Your task to perform on an android device: Search for seafood restaurants on Google Maps Image 0: 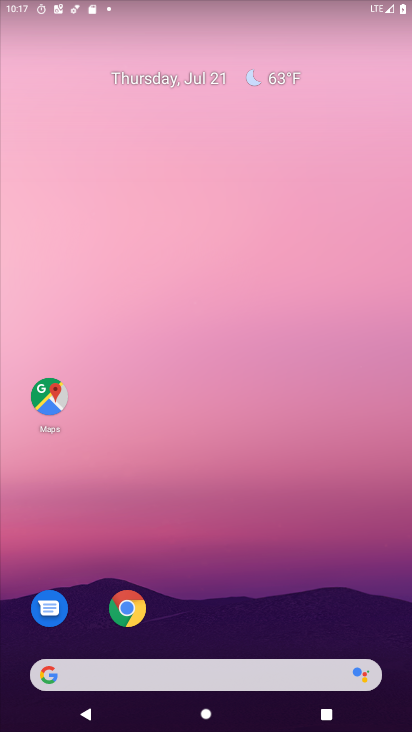
Step 0: drag from (245, 680) to (281, 221)
Your task to perform on an android device: Search for seafood restaurants on Google Maps Image 1: 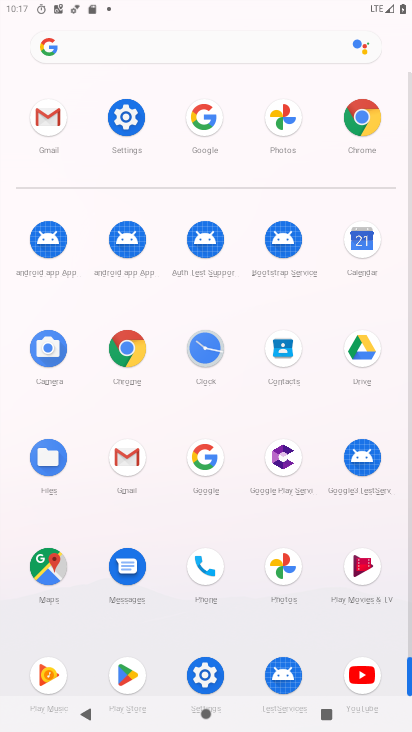
Step 1: click (49, 579)
Your task to perform on an android device: Search for seafood restaurants on Google Maps Image 2: 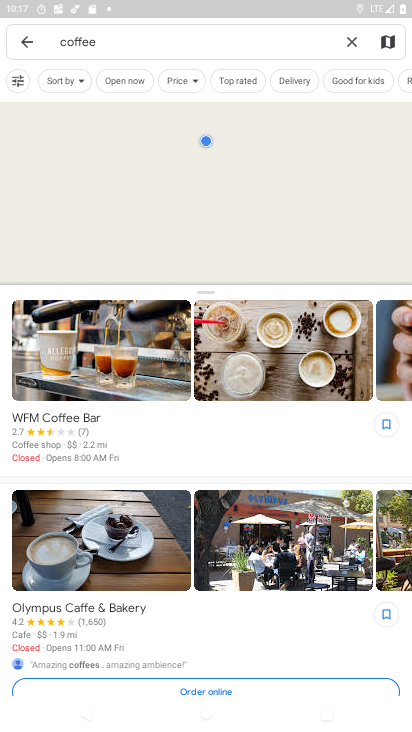
Step 2: click (348, 42)
Your task to perform on an android device: Search for seafood restaurants on Google Maps Image 3: 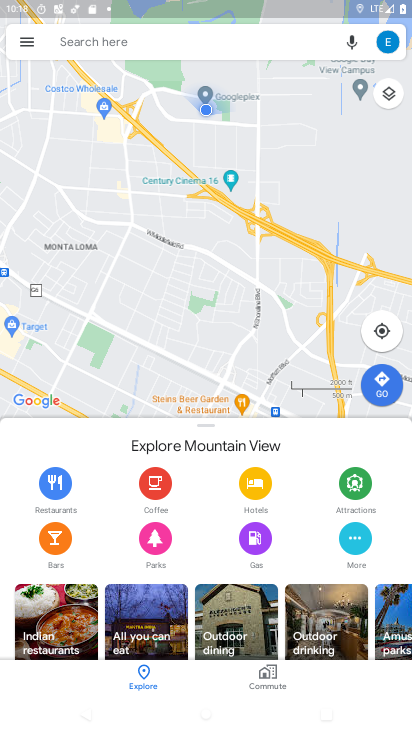
Step 3: click (258, 46)
Your task to perform on an android device: Search for seafood restaurants on Google Maps Image 4: 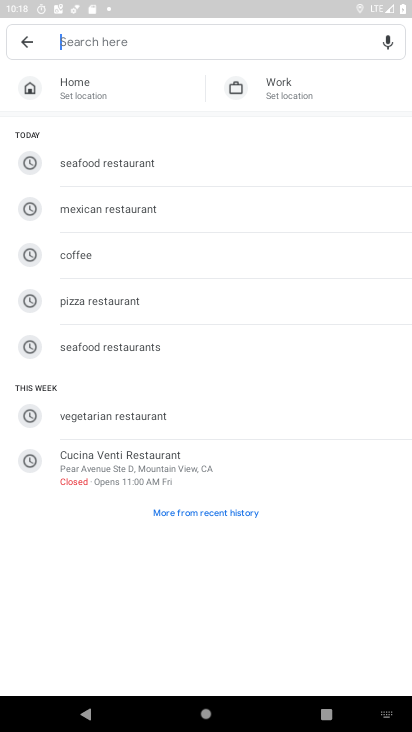
Step 4: click (112, 165)
Your task to perform on an android device: Search for seafood restaurants on Google Maps Image 5: 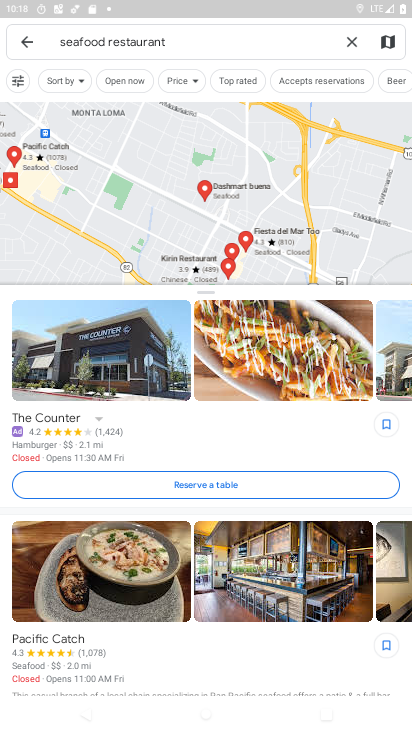
Step 5: task complete